Your task to perform on an android device: turn off sleep mode Image 0: 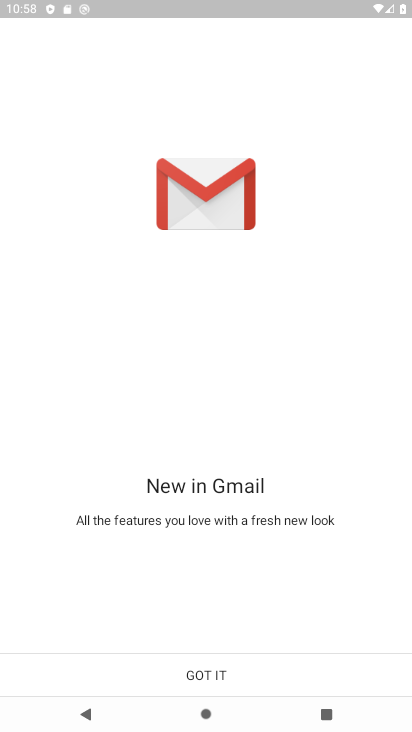
Step 0: press home button
Your task to perform on an android device: turn off sleep mode Image 1: 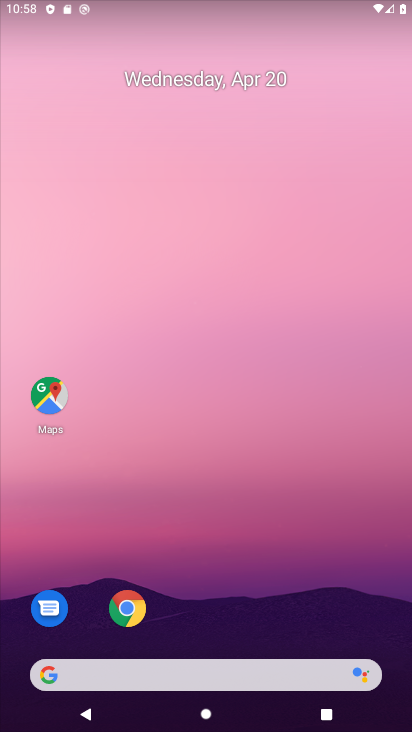
Step 1: drag from (227, 586) to (221, 120)
Your task to perform on an android device: turn off sleep mode Image 2: 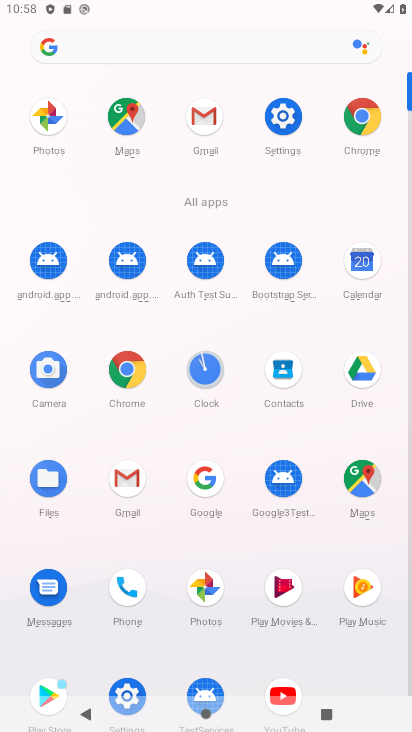
Step 2: click (281, 112)
Your task to perform on an android device: turn off sleep mode Image 3: 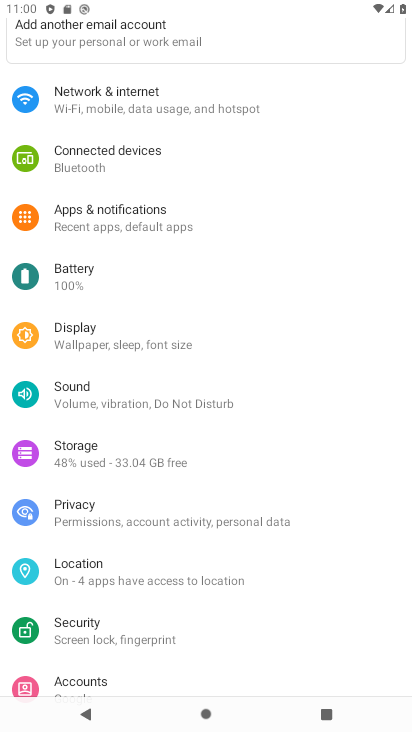
Step 3: click (153, 337)
Your task to perform on an android device: turn off sleep mode Image 4: 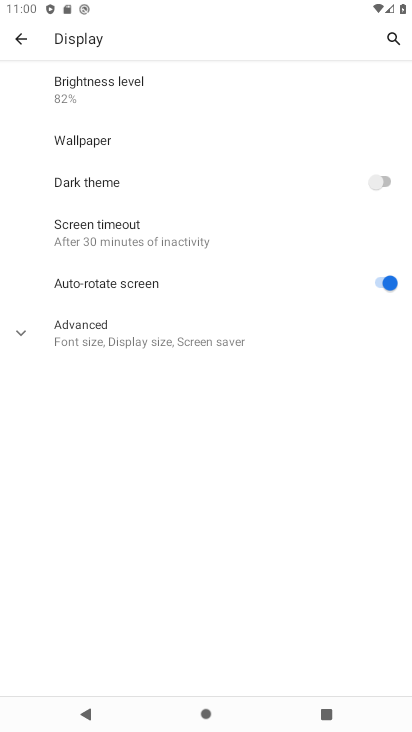
Step 4: click (118, 249)
Your task to perform on an android device: turn off sleep mode Image 5: 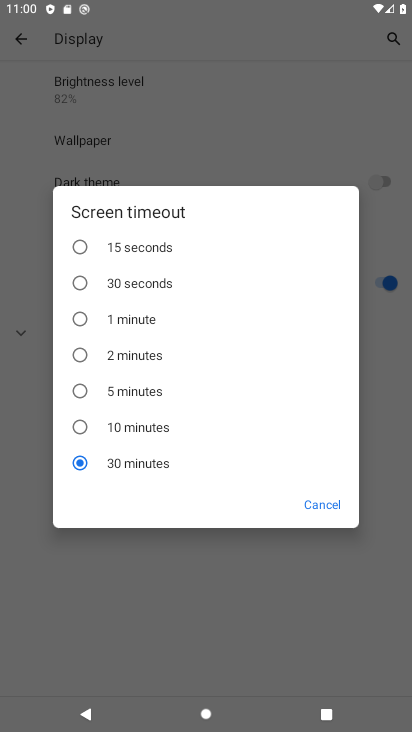
Step 5: task complete